Your task to perform on an android device: open chrome privacy settings Image 0: 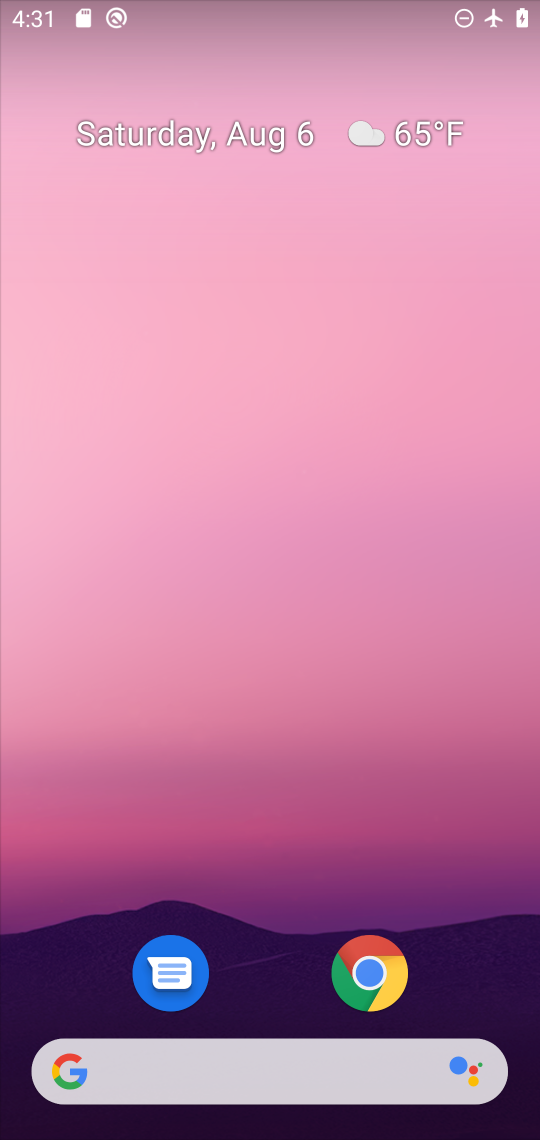
Step 0: drag from (284, 957) to (304, 1)
Your task to perform on an android device: open chrome privacy settings Image 1: 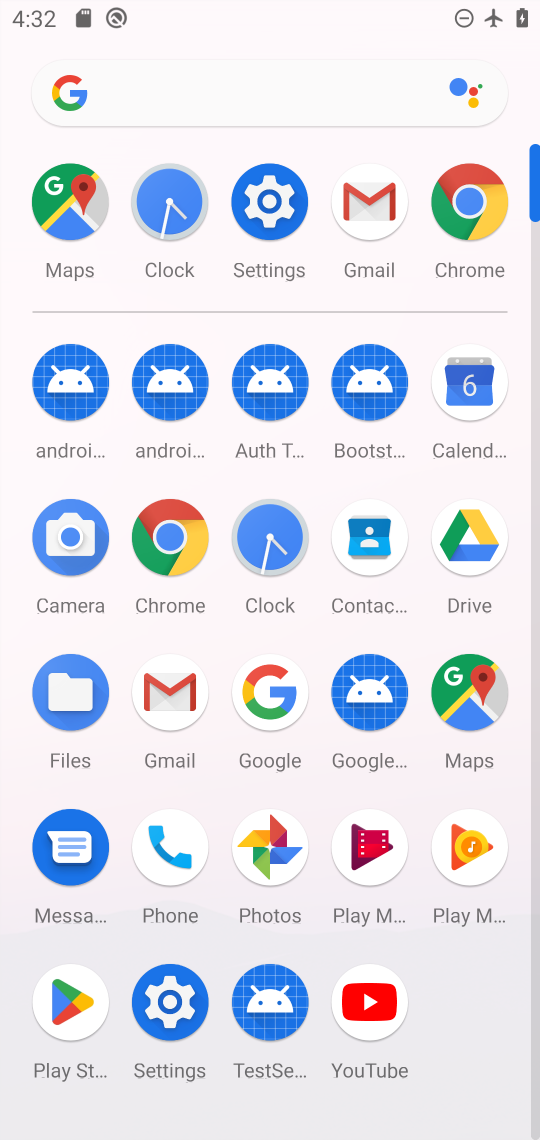
Step 1: click (173, 529)
Your task to perform on an android device: open chrome privacy settings Image 2: 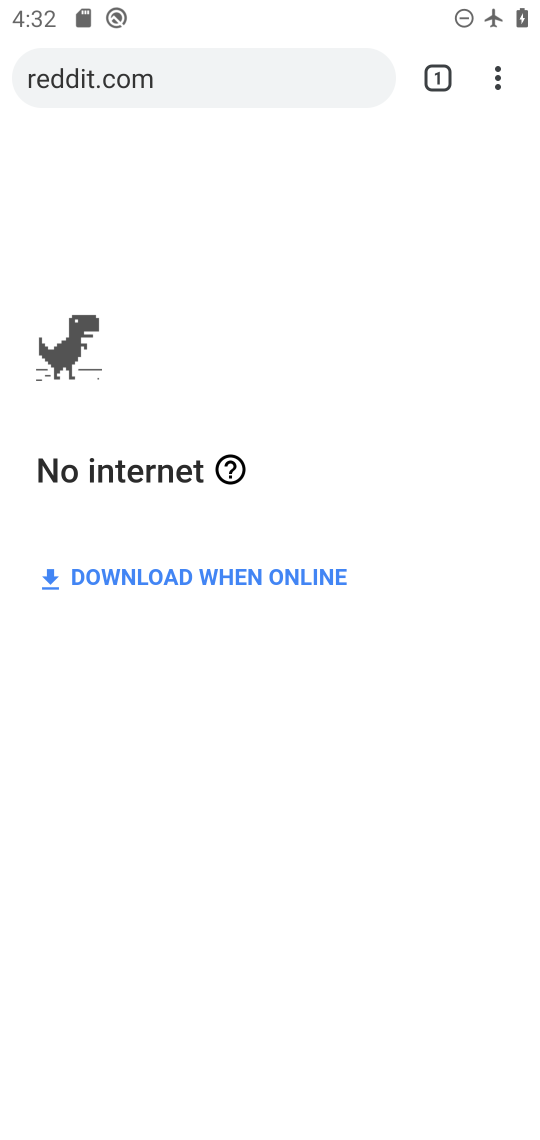
Step 2: drag from (489, 69) to (239, 860)
Your task to perform on an android device: open chrome privacy settings Image 3: 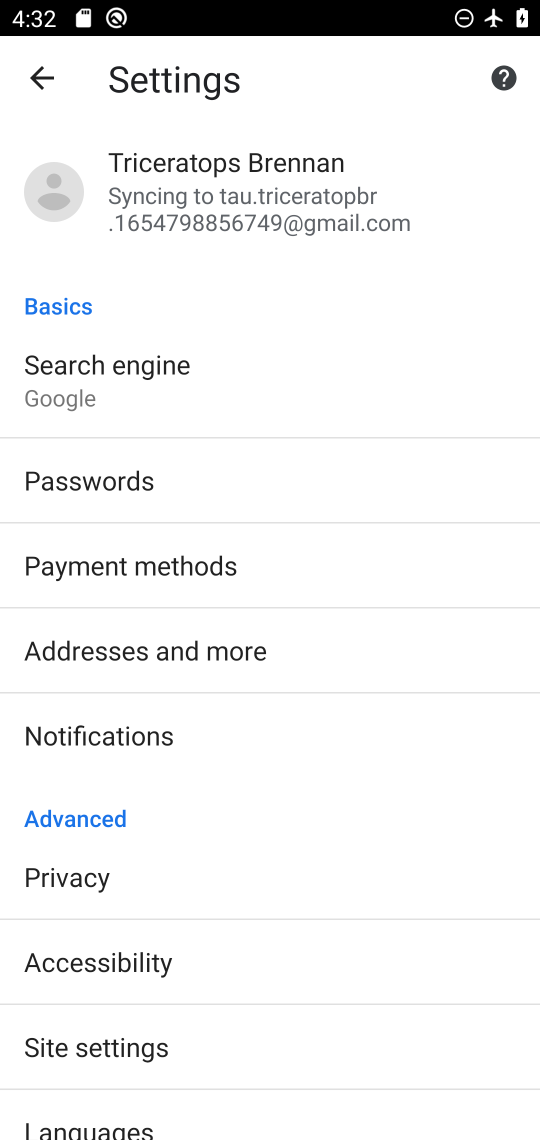
Step 3: drag from (307, 850) to (393, 356)
Your task to perform on an android device: open chrome privacy settings Image 4: 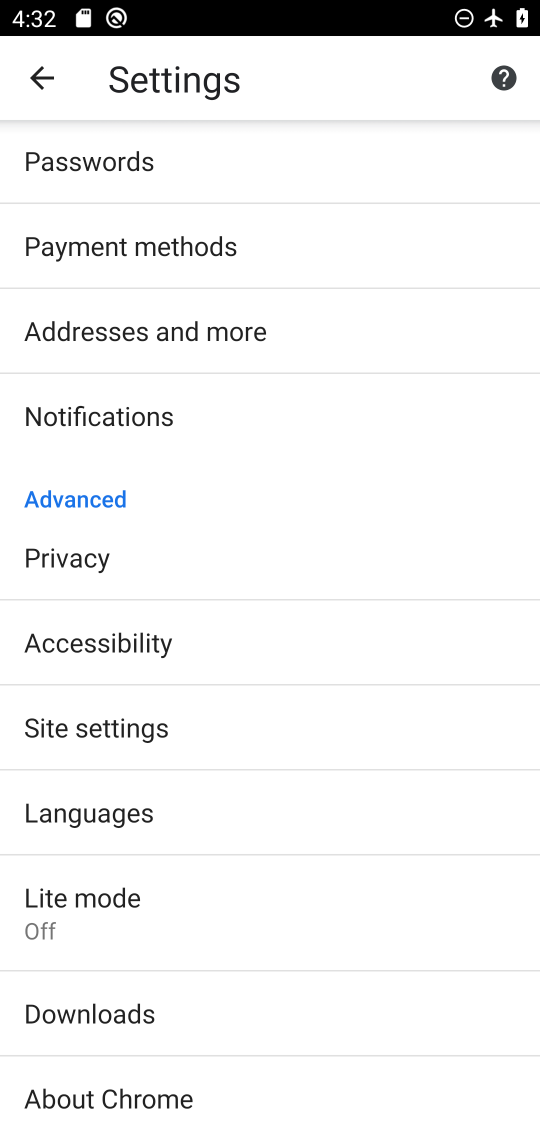
Step 4: drag from (315, 923) to (319, 853)
Your task to perform on an android device: open chrome privacy settings Image 5: 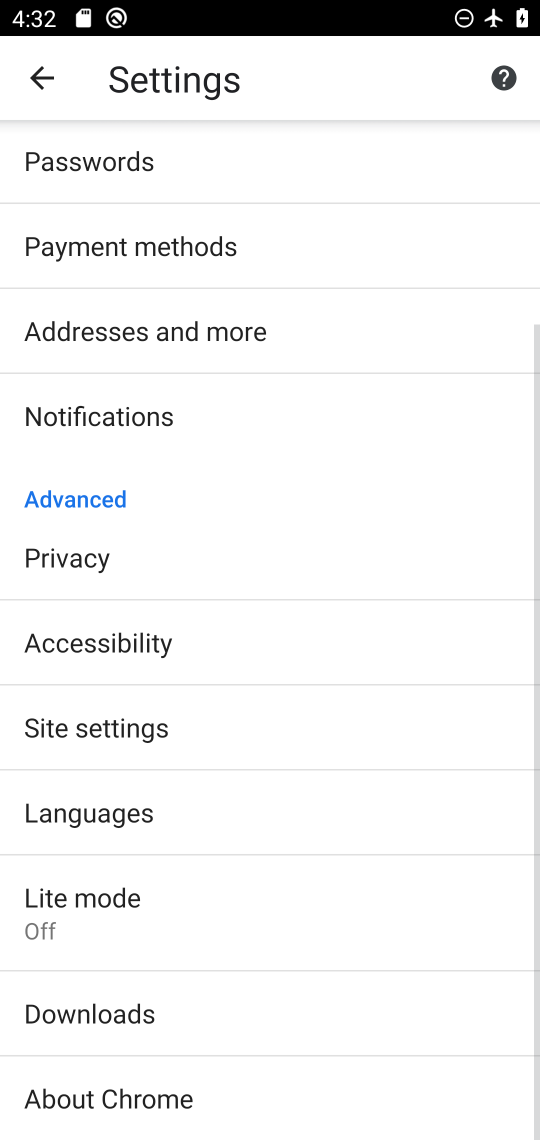
Step 5: click (87, 551)
Your task to perform on an android device: open chrome privacy settings Image 6: 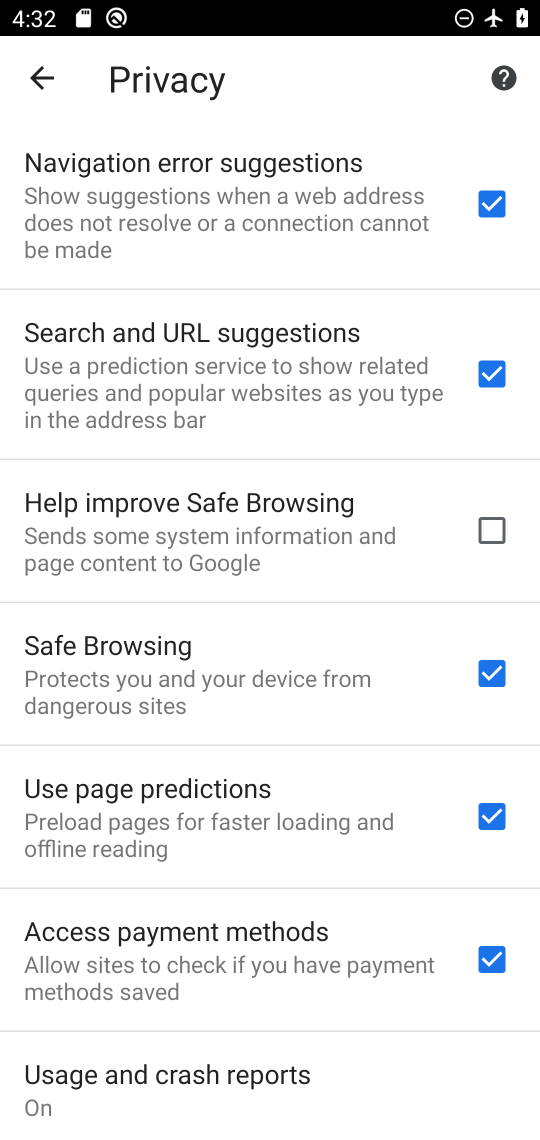
Step 6: task complete